Your task to perform on an android device: uninstall "Move to iOS" Image 0: 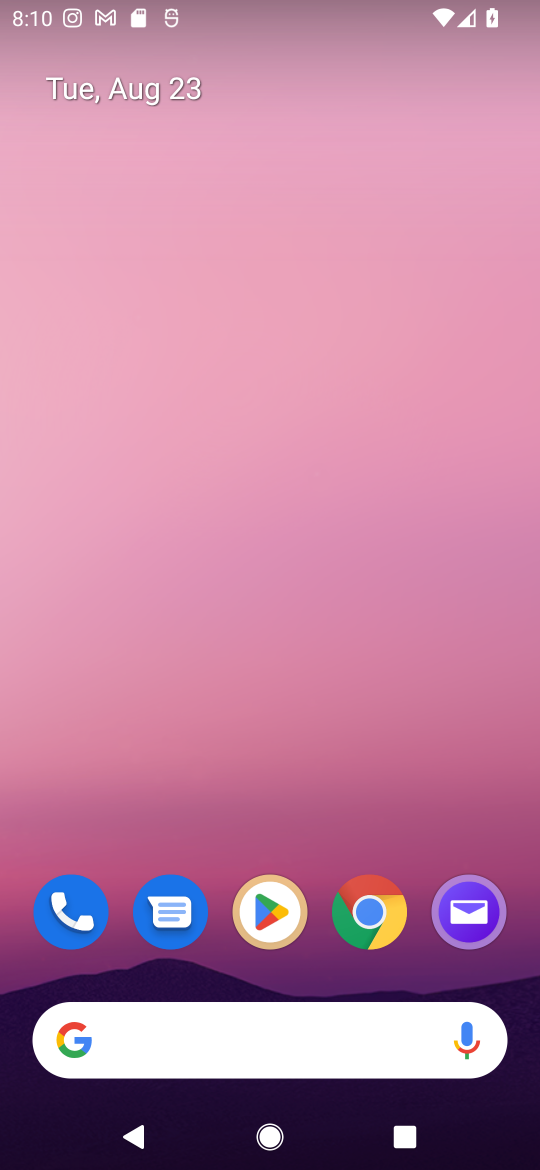
Step 0: click (274, 920)
Your task to perform on an android device: uninstall "Move to iOS" Image 1: 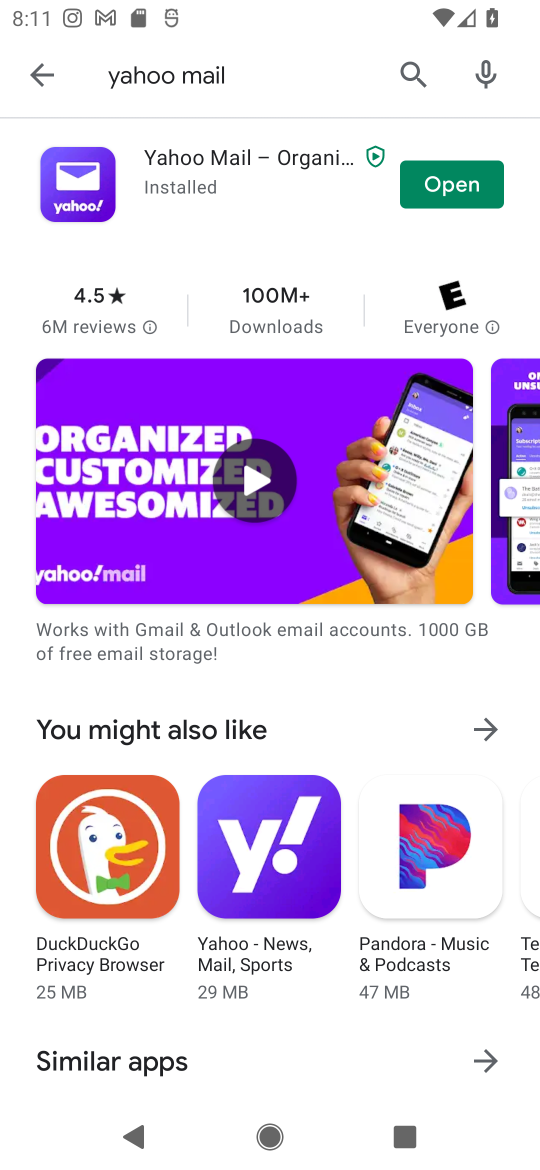
Step 1: click (407, 72)
Your task to perform on an android device: uninstall "Move to iOS" Image 2: 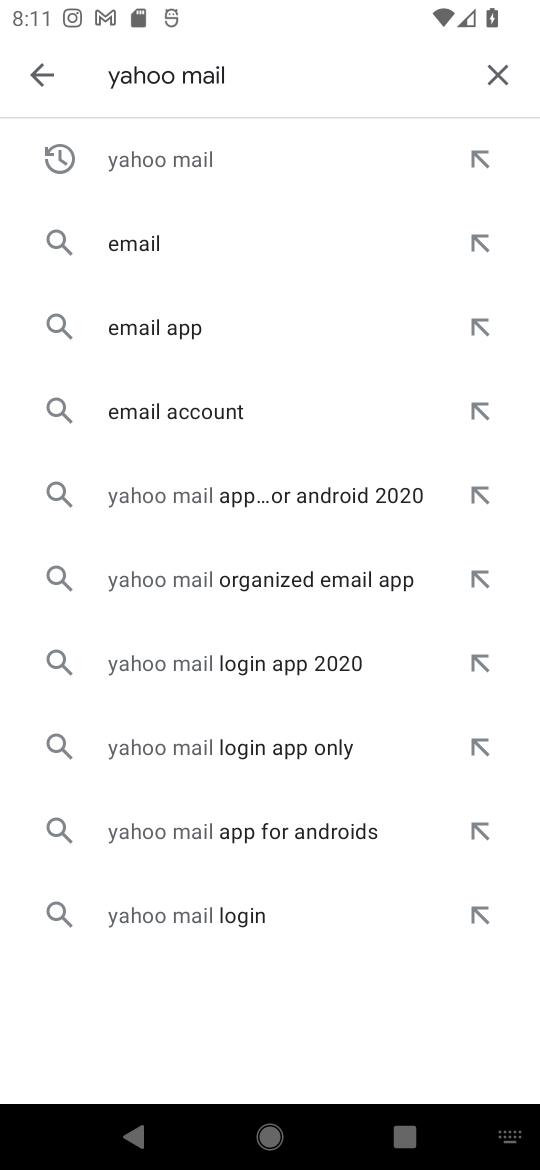
Step 2: click (495, 71)
Your task to perform on an android device: uninstall "Move to iOS" Image 3: 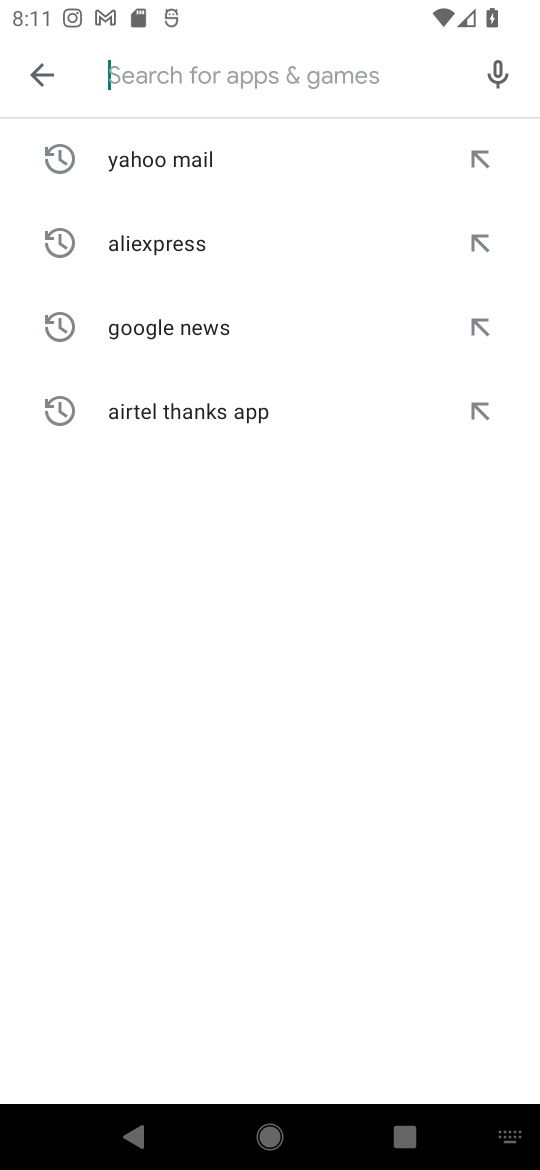
Step 3: type "Move to iOS"
Your task to perform on an android device: uninstall "Move to iOS" Image 4: 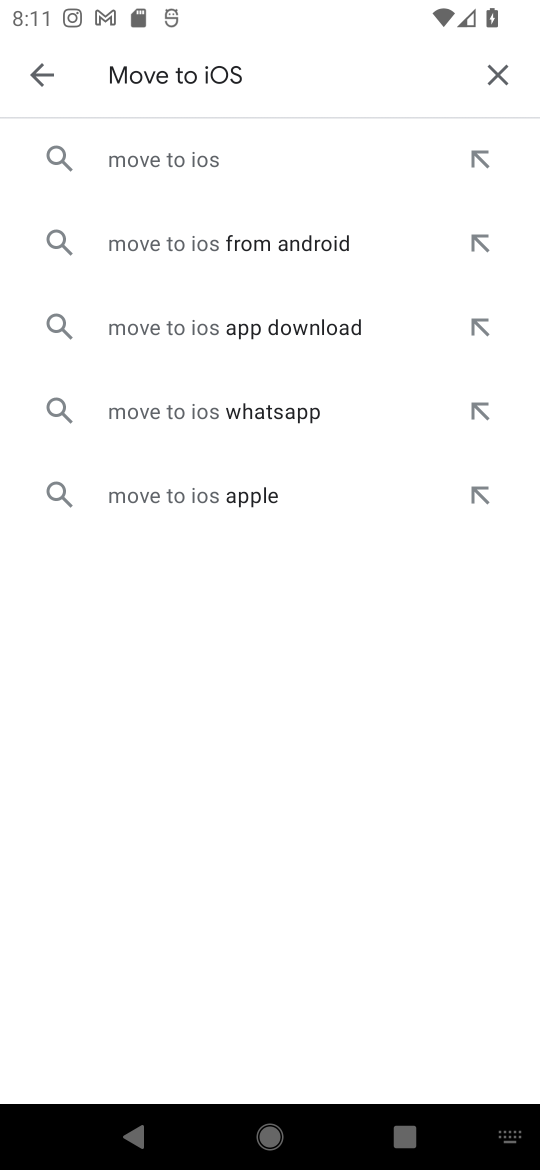
Step 4: click (165, 155)
Your task to perform on an android device: uninstall "Move to iOS" Image 5: 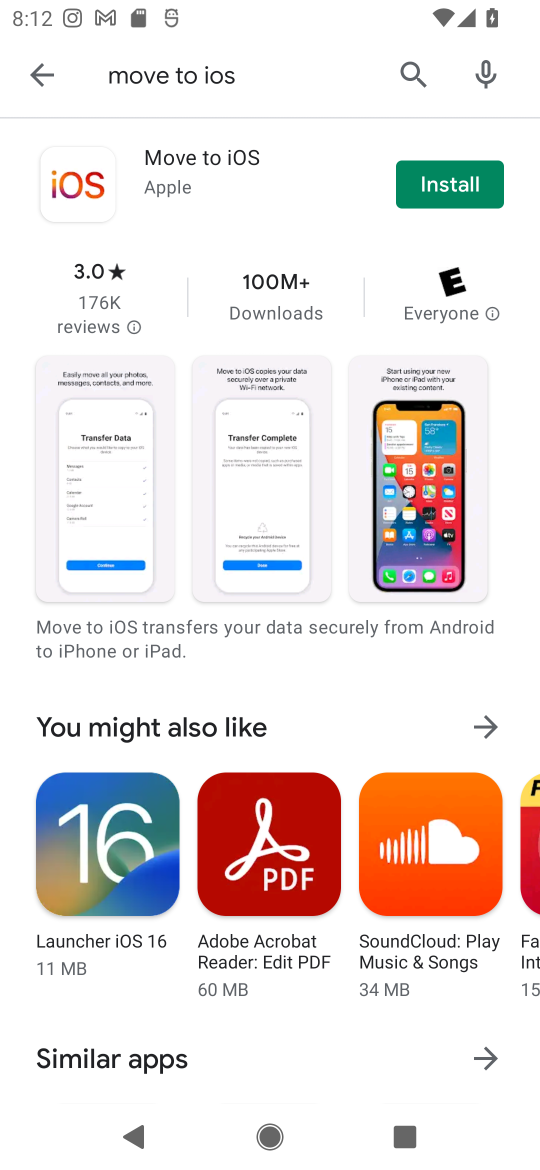
Step 5: task complete